Your task to perform on an android device: turn off airplane mode Image 0: 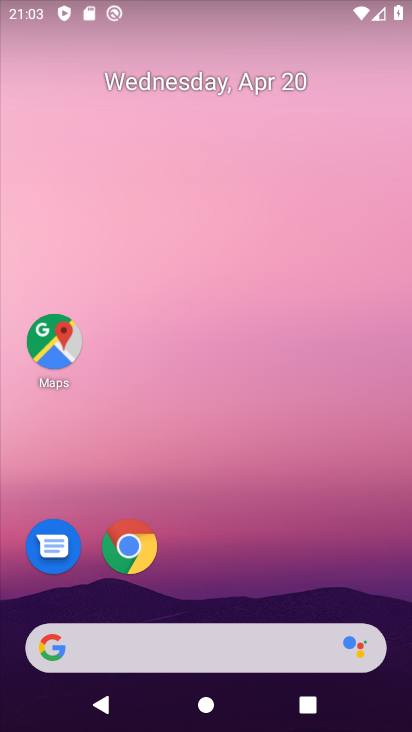
Step 0: drag from (305, 10) to (263, 548)
Your task to perform on an android device: turn off airplane mode Image 1: 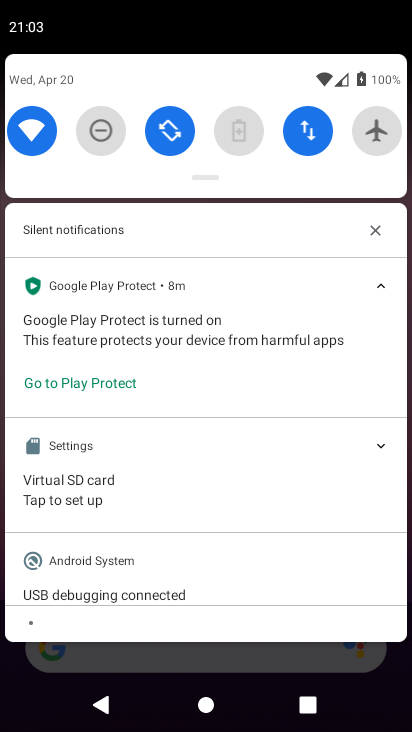
Step 1: task complete